Your task to perform on an android device: View the shopping cart on ebay. Add macbook to the cart on ebay Image 0: 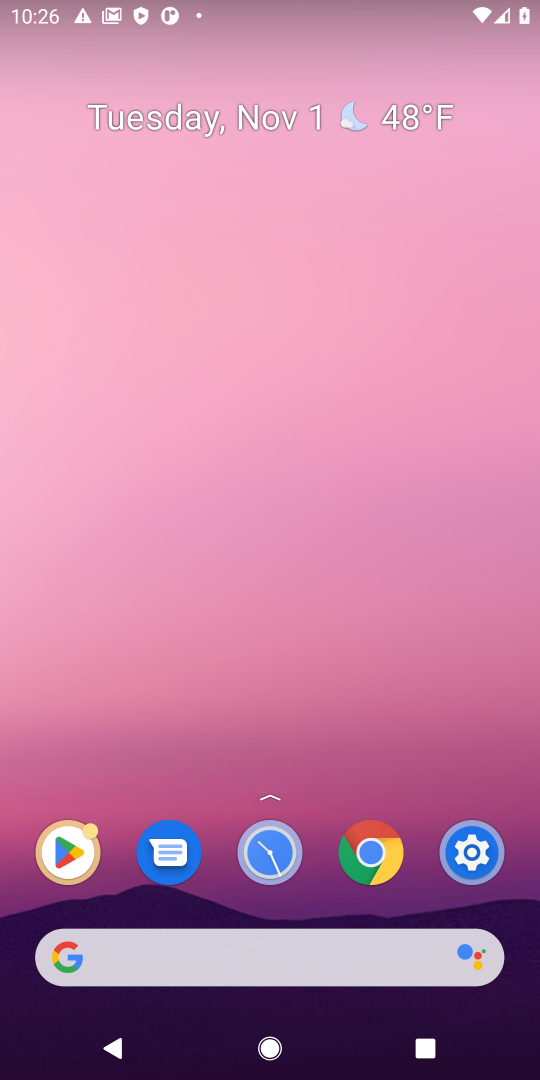
Step 0: click (156, 973)
Your task to perform on an android device: View the shopping cart on ebay. Add macbook to the cart on ebay Image 1: 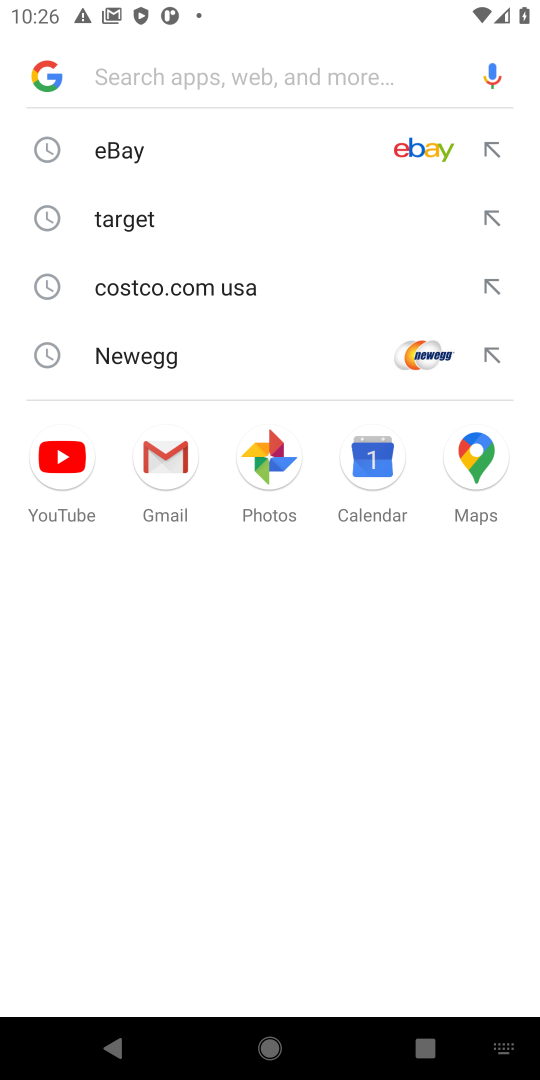
Step 1: type "ebay"
Your task to perform on an android device: View the shopping cart on ebay. Add macbook to the cart on ebay Image 2: 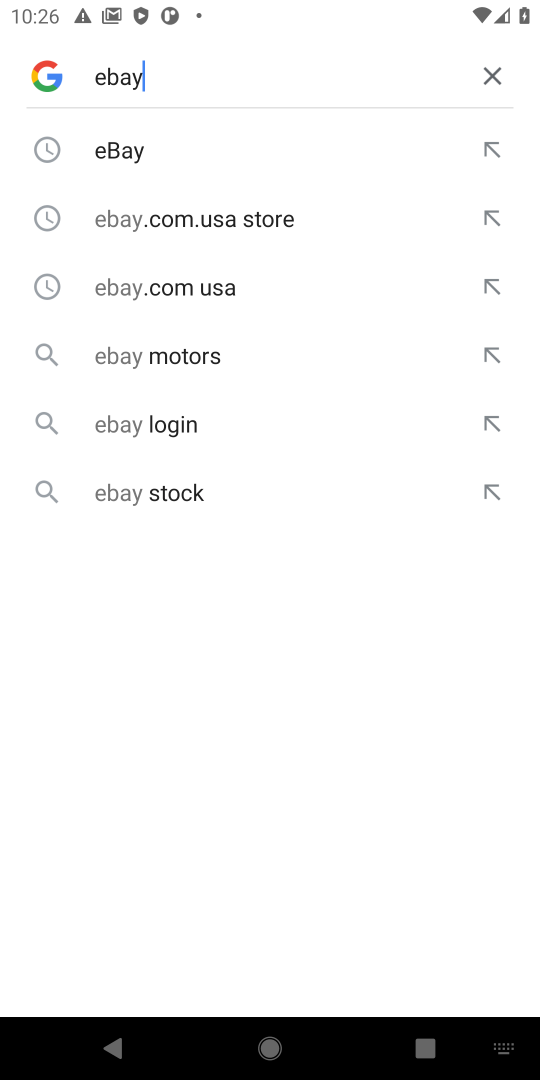
Step 2: type ""
Your task to perform on an android device: View the shopping cart on ebay. Add macbook to the cart on ebay Image 3: 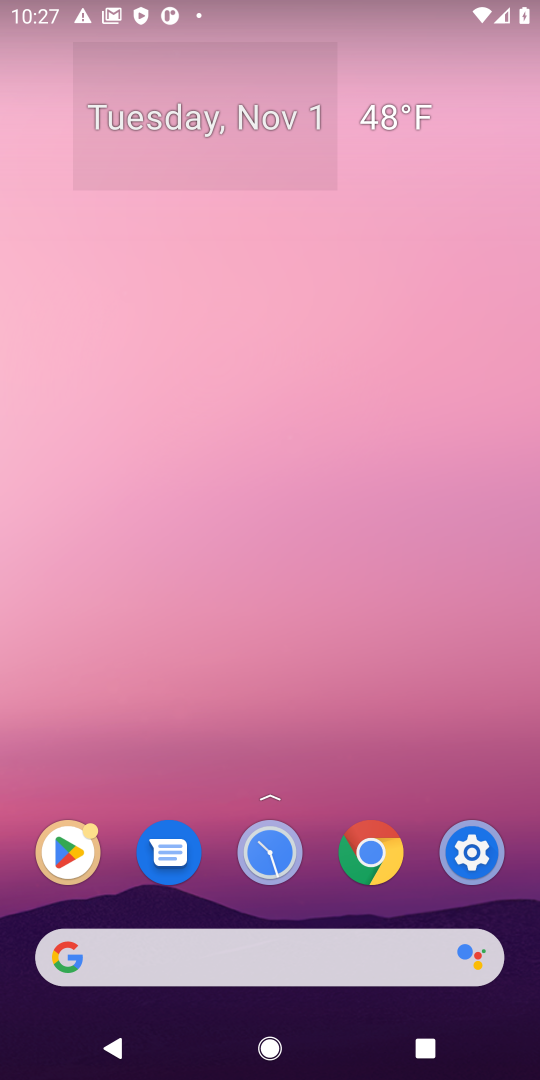
Step 3: click (236, 939)
Your task to perform on an android device: View the shopping cart on ebay. Add macbook to the cart on ebay Image 4: 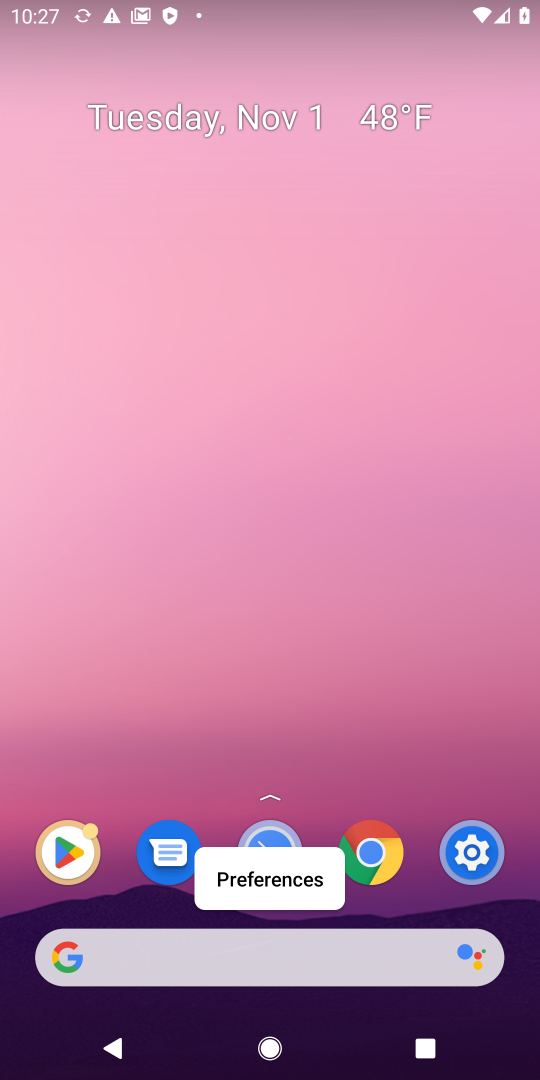
Step 4: click (264, 934)
Your task to perform on an android device: View the shopping cart on ebay. Add macbook to the cart on ebay Image 5: 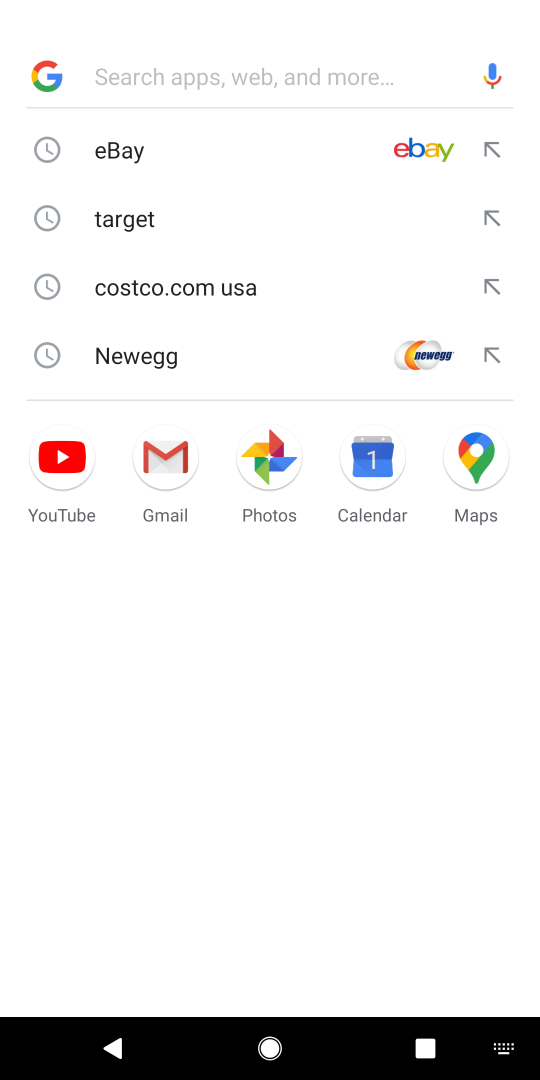
Step 5: type "macbook"
Your task to perform on an android device: View the shopping cart on ebay. Add macbook to the cart on ebay Image 6: 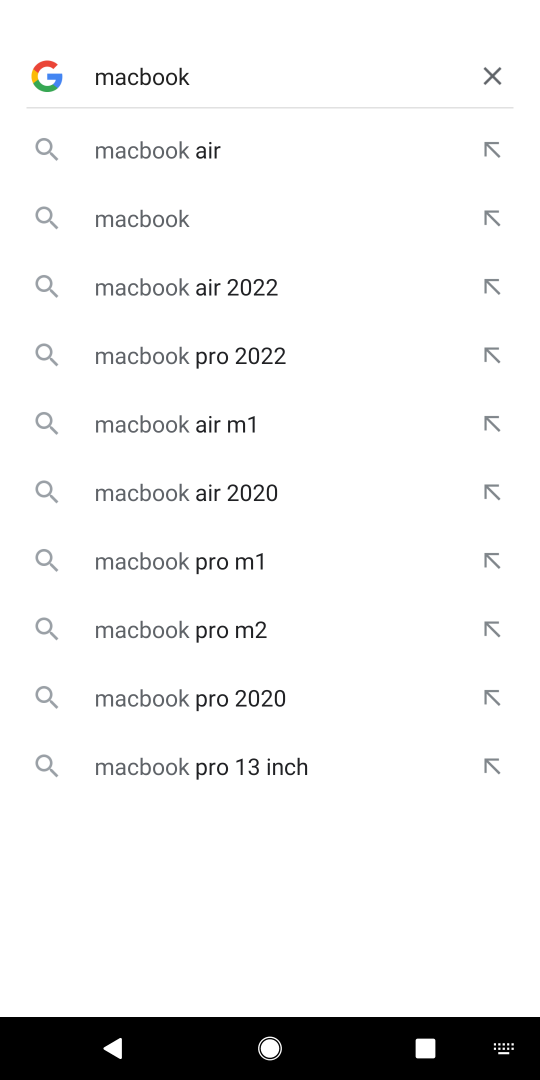
Step 6: type ""
Your task to perform on an android device: View the shopping cart on ebay. Add macbook to the cart on ebay Image 7: 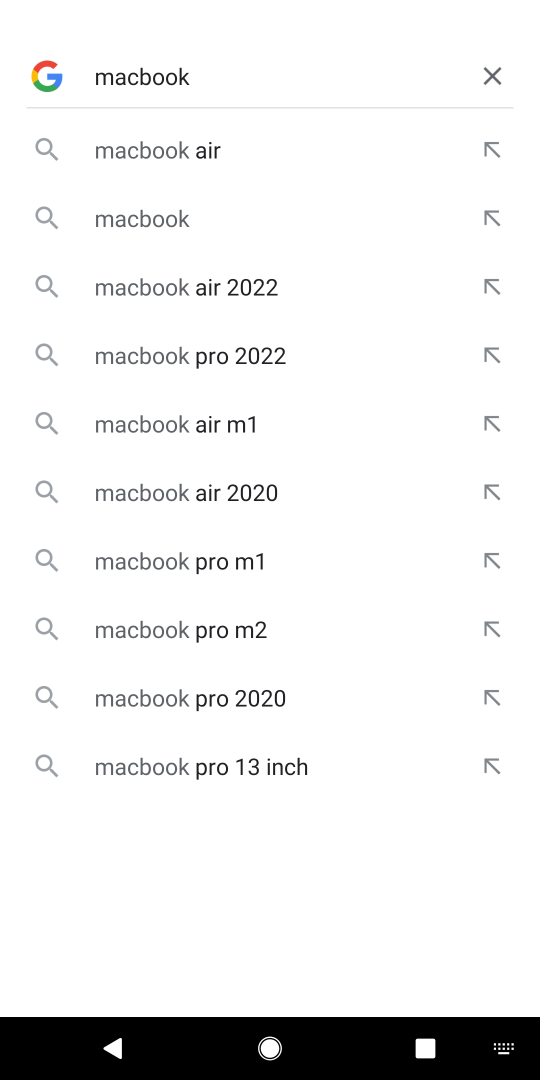
Step 7: press enter
Your task to perform on an android device: View the shopping cart on ebay. Add macbook to the cart on ebay Image 8: 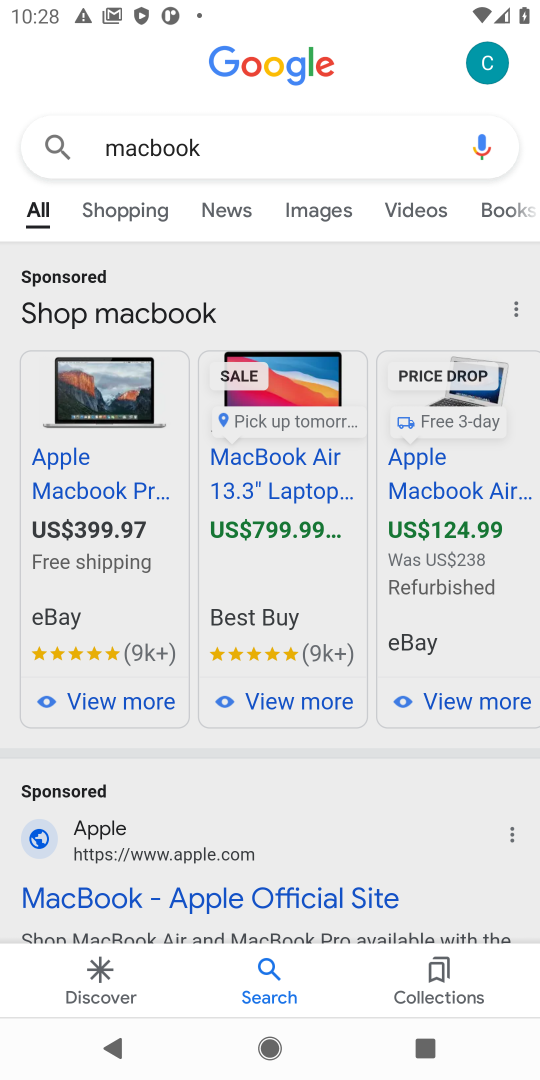
Step 8: click (235, 163)
Your task to perform on an android device: View the shopping cart on ebay. Add macbook to the cart on ebay Image 9: 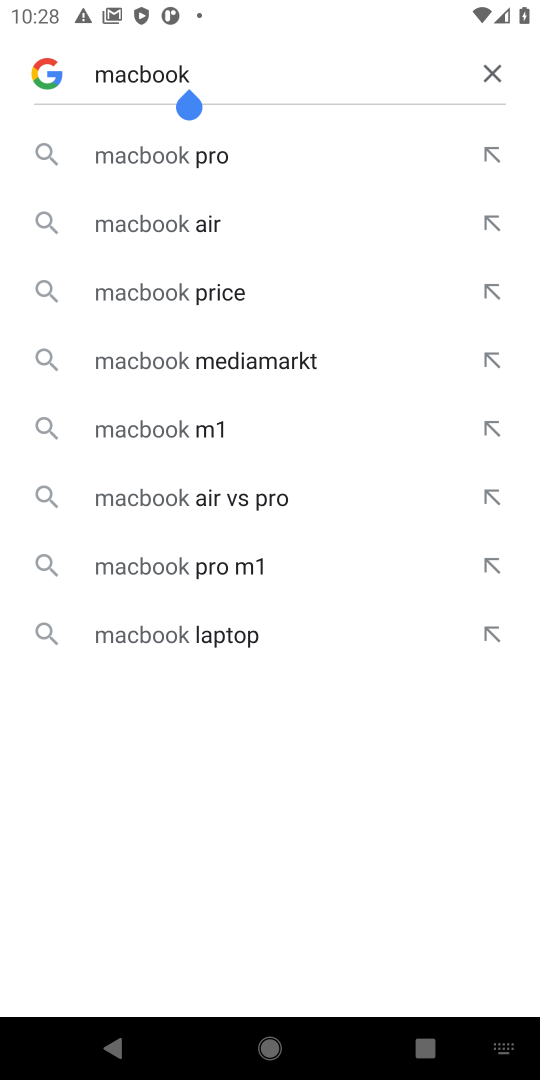
Step 9: click (493, 74)
Your task to perform on an android device: View the shopping cart on ebay. Add macbook to the cart on ebay Image 10: 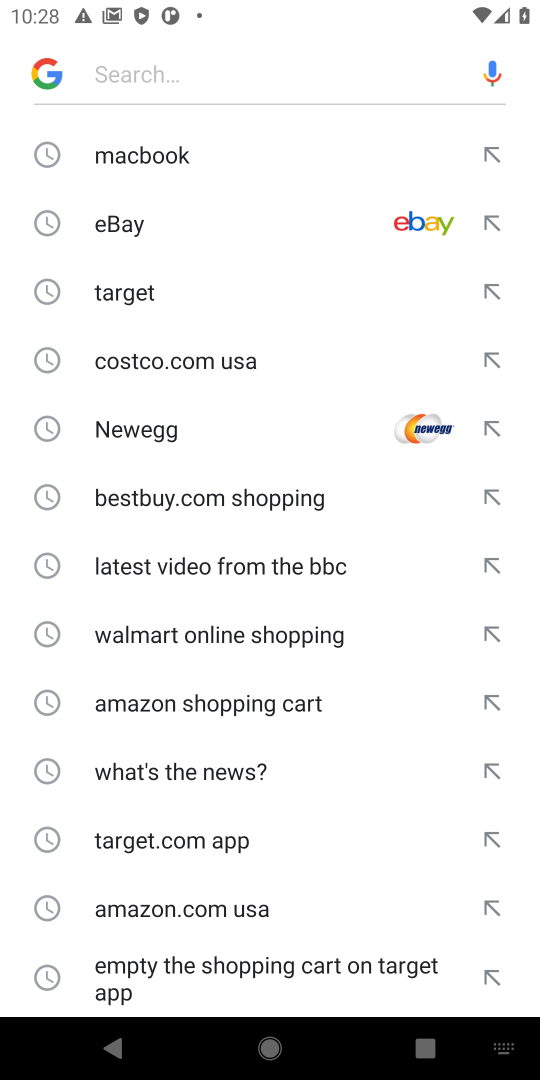
Step 10: type "ebay"
Your task to perform on an android device: View the shopping cart on ebay. Add macbook to the cart on ebay Image 11: 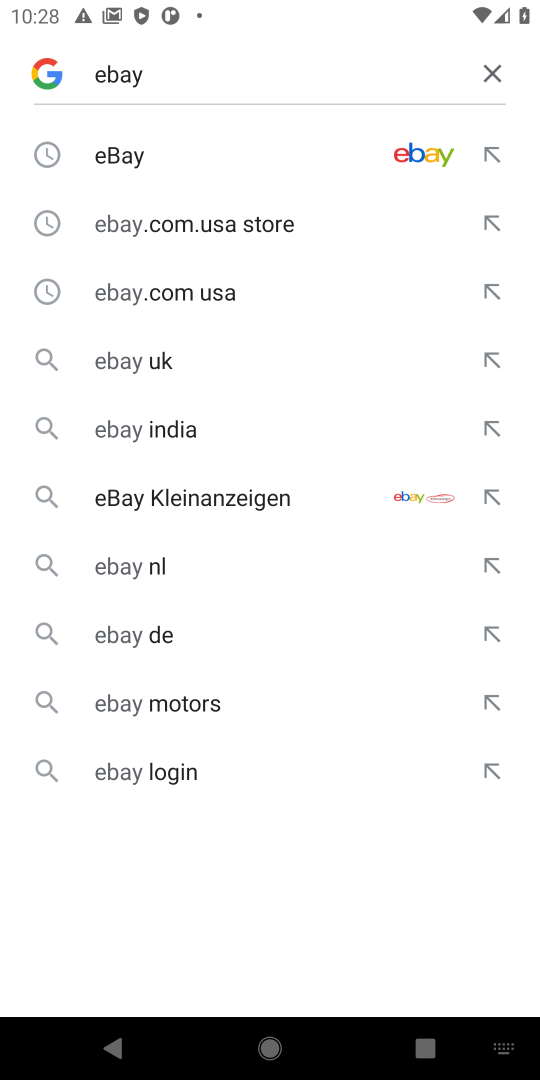
Step 11: type ""
Your task to perform on an android device: View the shopping cart on ebay. Add macbook to the cart on ebay Image 12: 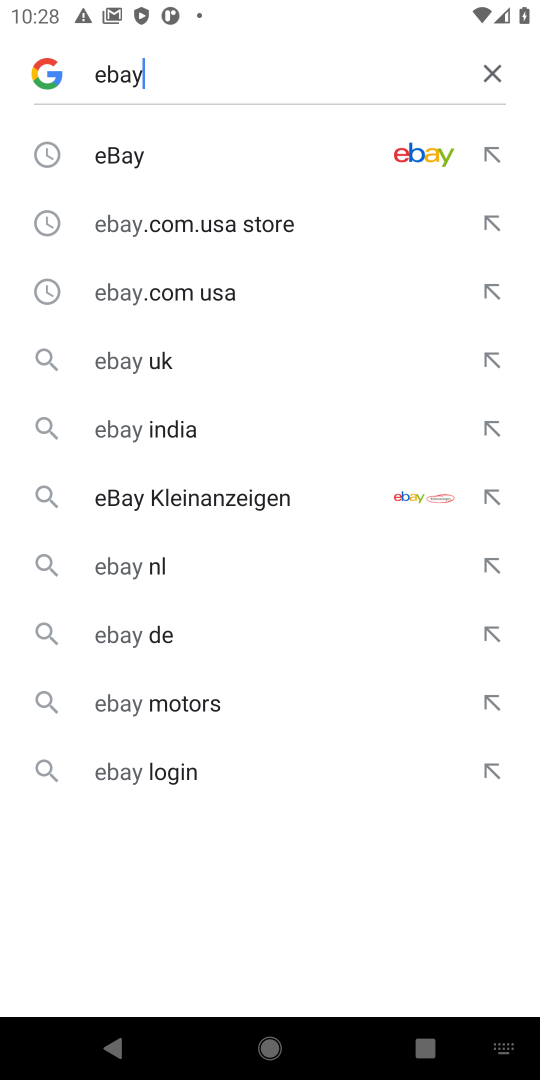
Step 12: press enter
Your task to perform on an android device: View the shopping cart on ebay. Add macbook to the cart on ebay Image 13: 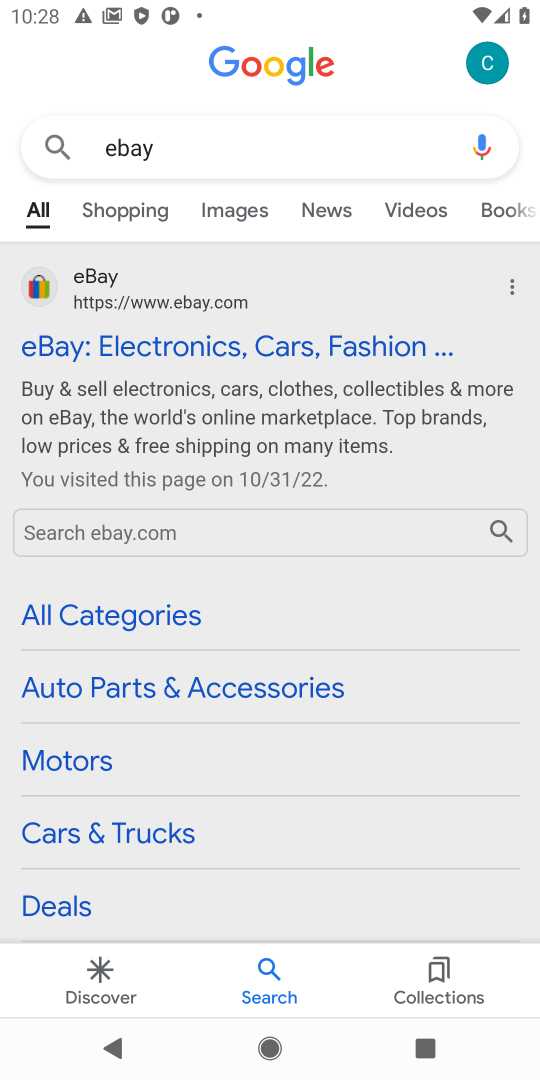
Step 13: click (105, 299)
Your task to perform on an android device: View the shopping cart on ebay. Add macbook to the cart on ebay Image 14: 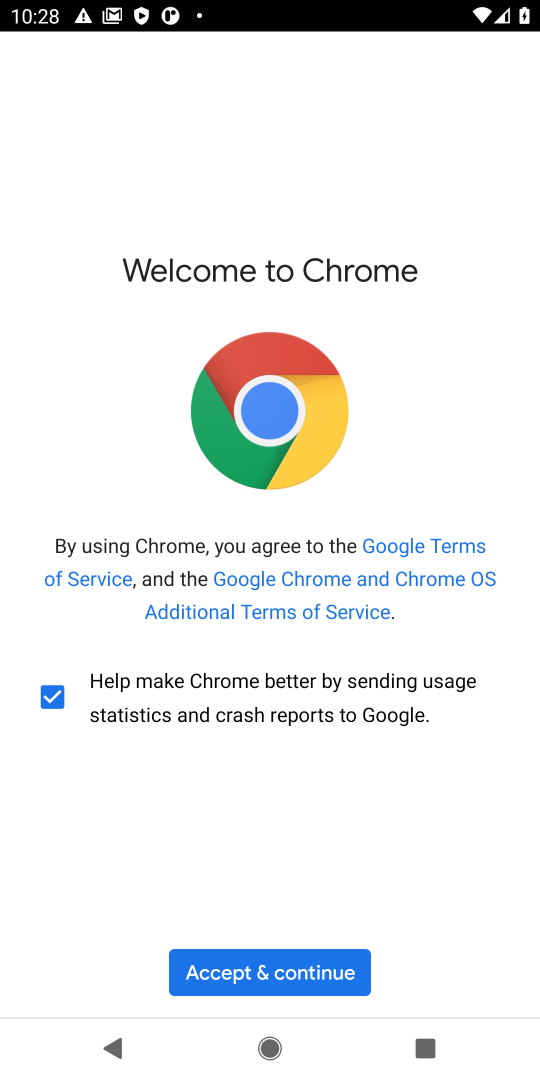
Step 14: click (291, 968)
Your task to perform on an android device: View the shopping cart on ebay. Add macbook to the cart on ebay Image 15: 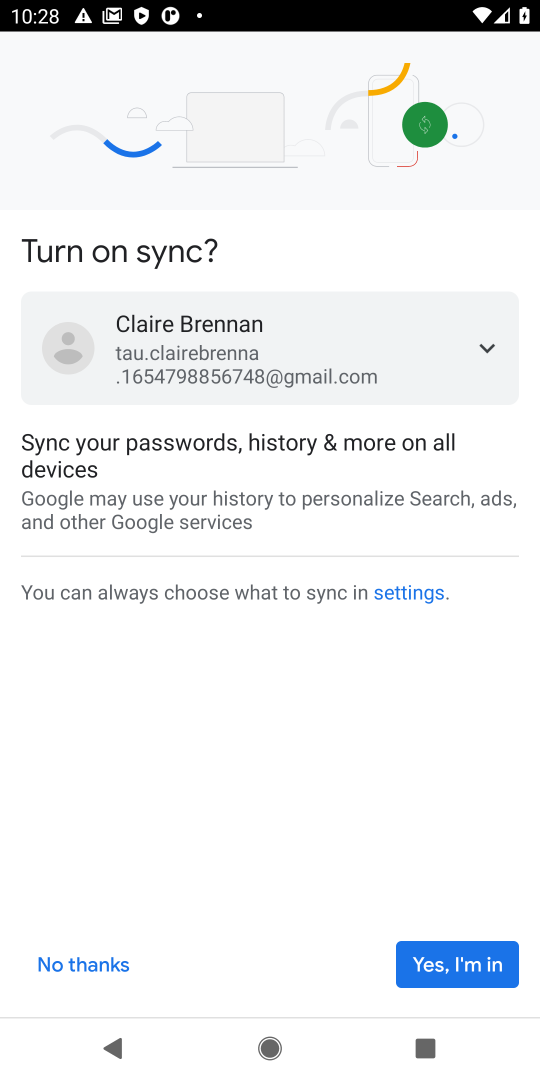
Step 15: click (417, 976)
Your task to perform on an android device: View the shopping cart on ebay. Add macbook to the cart on ebay Image 16: 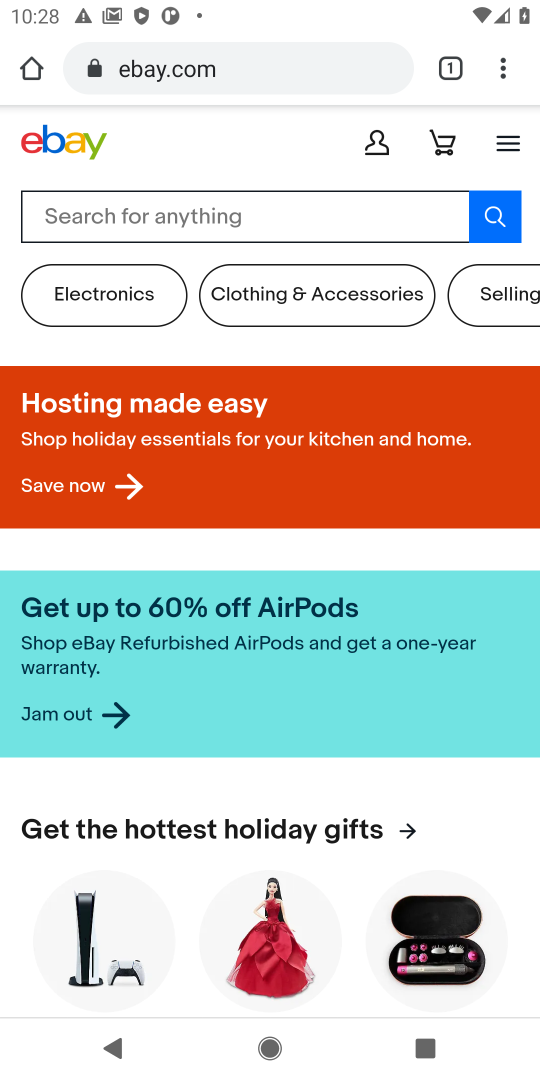
Step 16: click (72, 214)
Your task to perform on an android device: View the shopping cart on ebay. Add macbook to the cart on ebay Image 17: 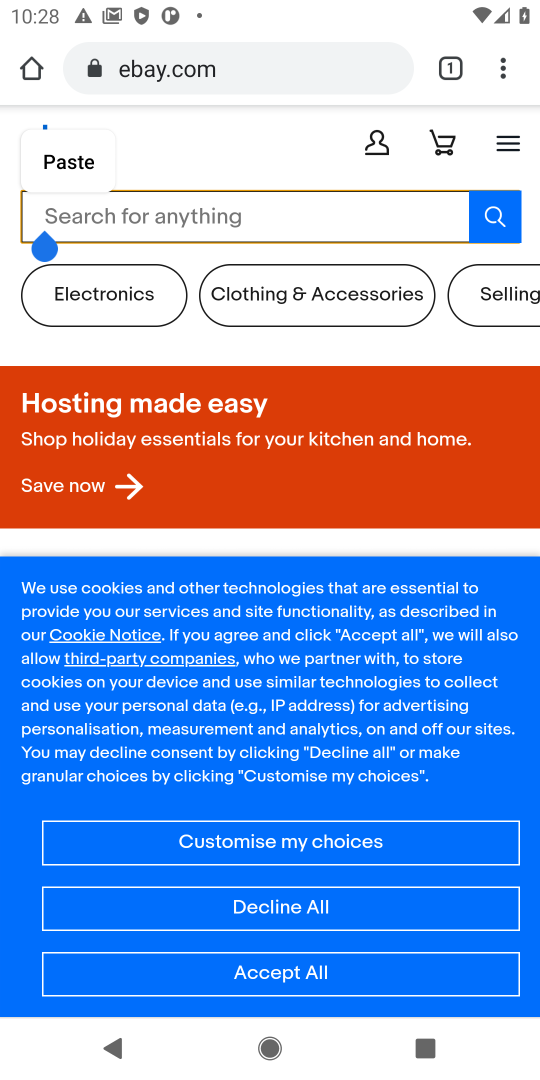
Step 17: click (332, 981)
Your task to perform on an android device: View the shopping cart on ebay. Add macbook to the cart on ebay Image 18: 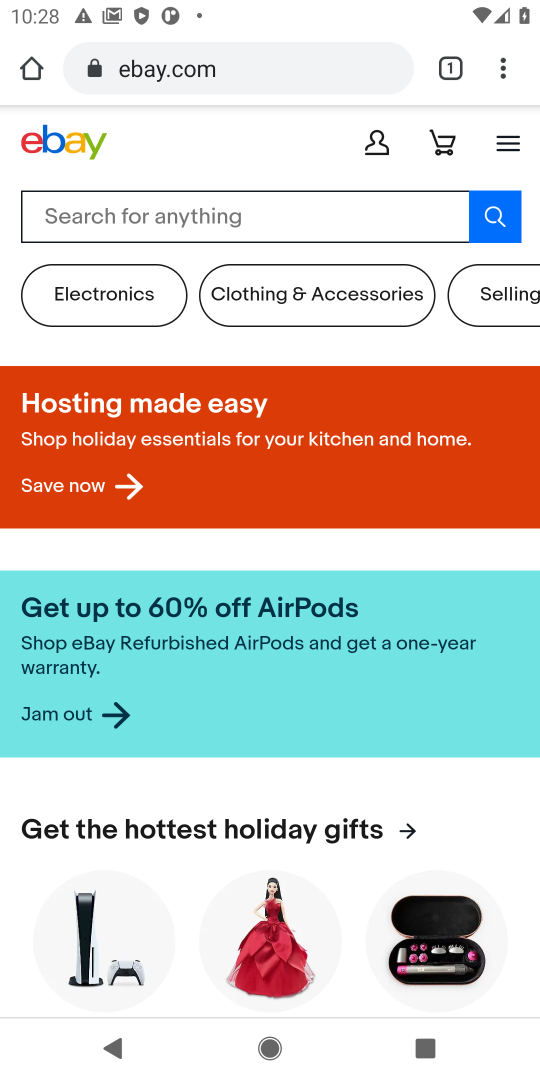
Step 18: click (61, 208)
Your task to perform on an android device: View the shopping cart on ebay. Add macbook to the cart on ebay Image 19: 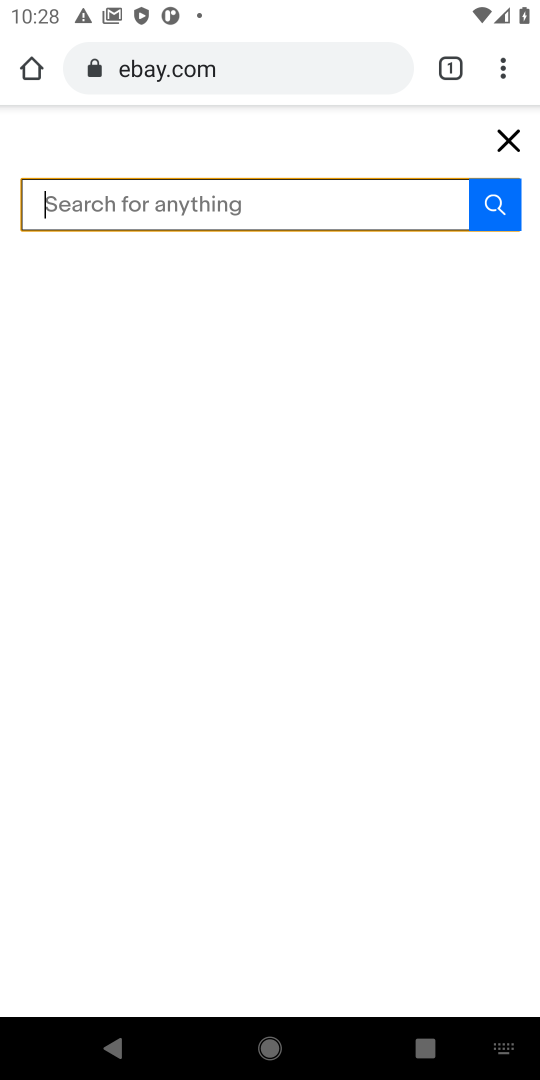
Step 19: type "macbook"
Your task to perform on an android device: View the shopping cart on ebay. Add macbook to the cart on ebay Image 20: 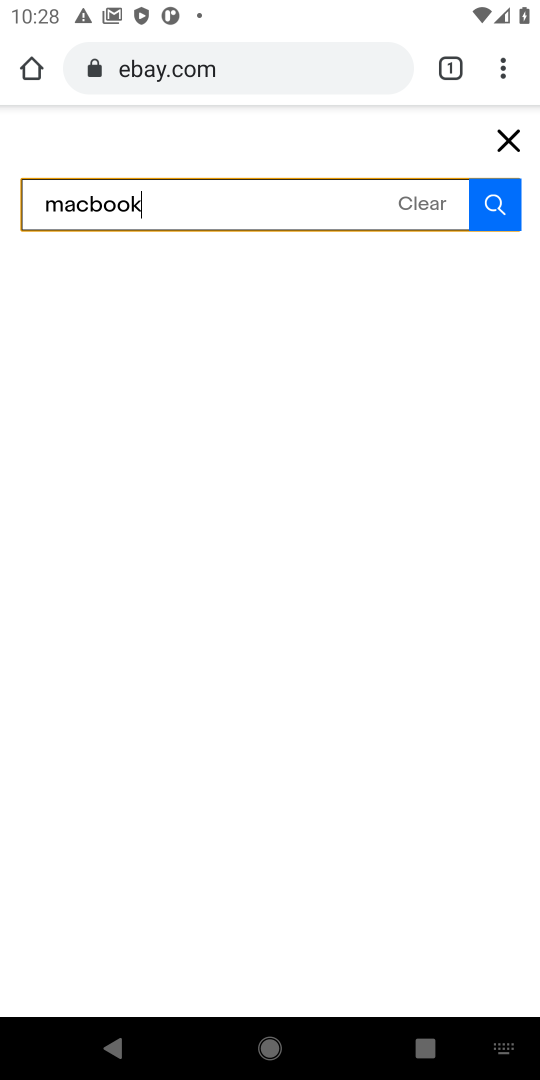
Step 20: type ""
Your task to perform on an android device: View the shopping cart on ebay. Add macbook to the cart on ebay Image 21: 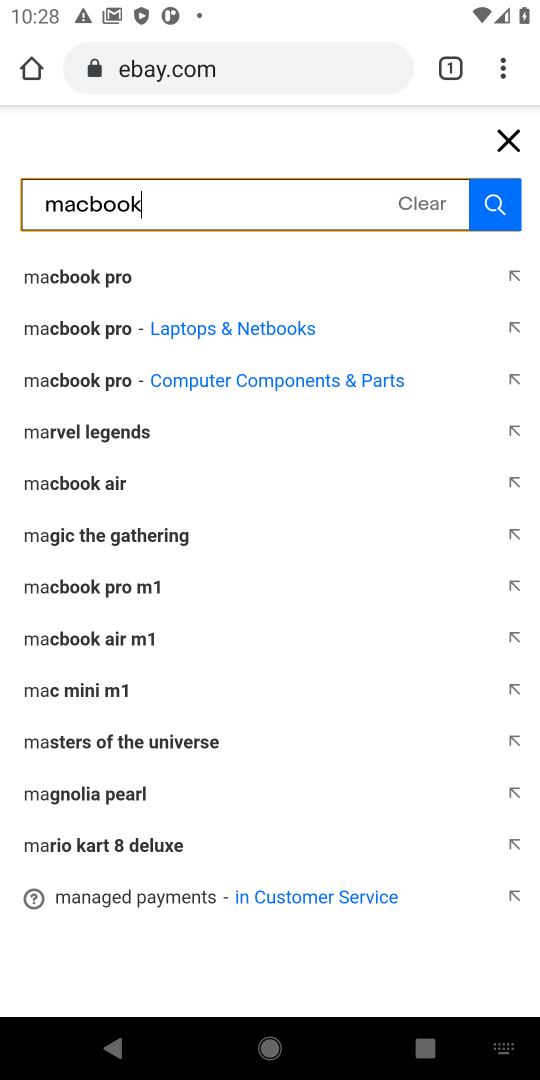
Step 21: click (504, 219)
Your task to perform on an android device: View the shopping cart on ebay. Add macbook to the cart on ebay Image 22: 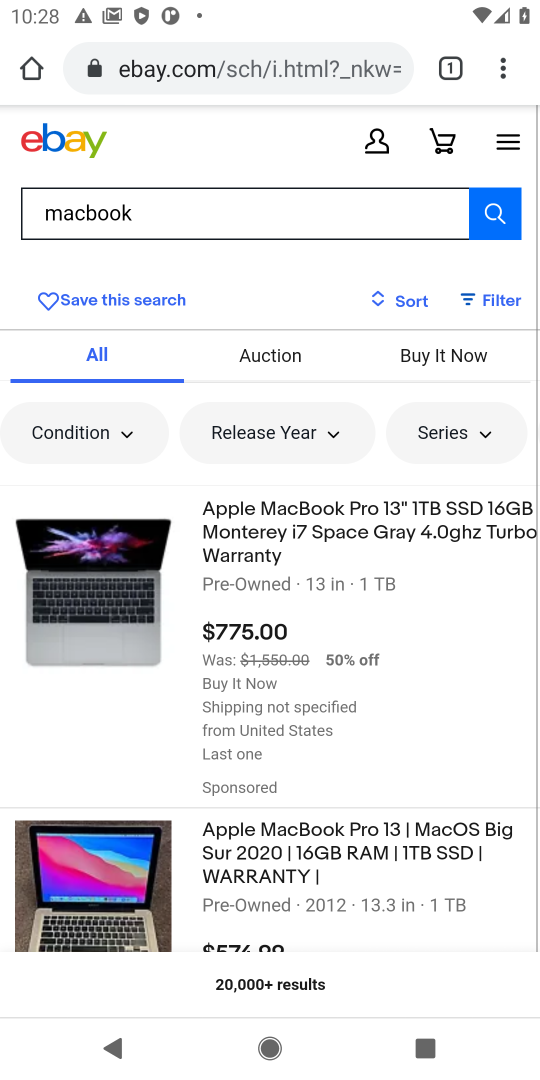
Step 22: click (320, 508)
Your task to perform on an android device: View the shopping cart on ebay. Add macbook to the cart on ebay Image 23: 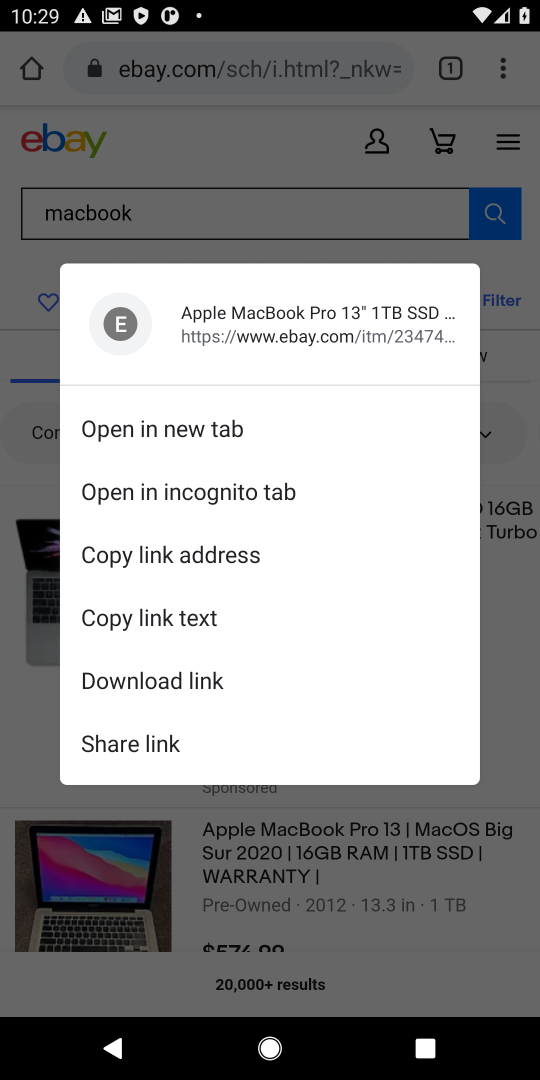
Step 23: click (516, 495)
Your task to perform on an android device: View the shopping cart on ebay. Add macbook to the cart on ebay Image 24: 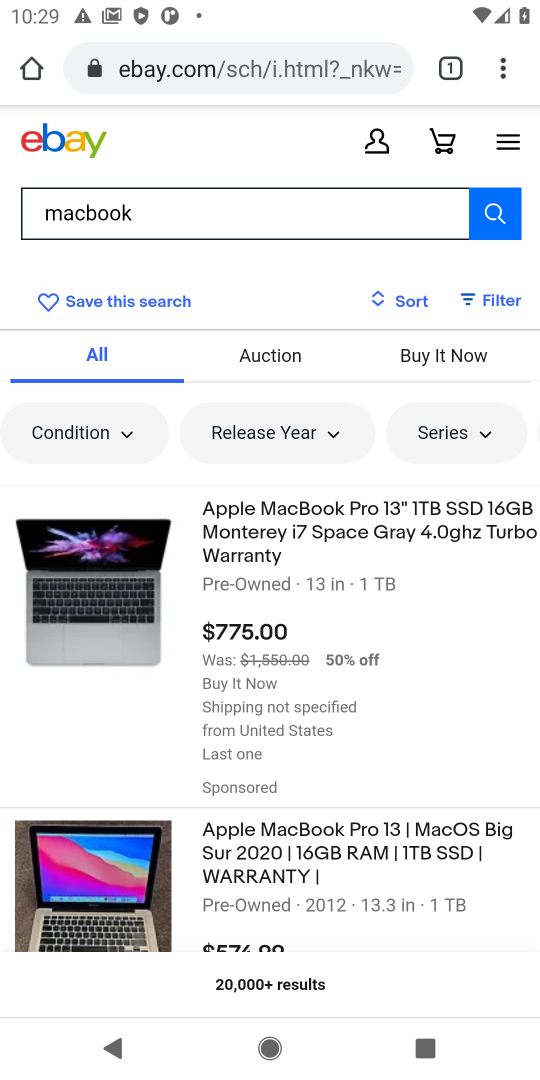
Step 24: click (339, 527)
Your task to perform on an android device: View the shopping cart on ebay. Add macbook to the cart on ebay Image 25: 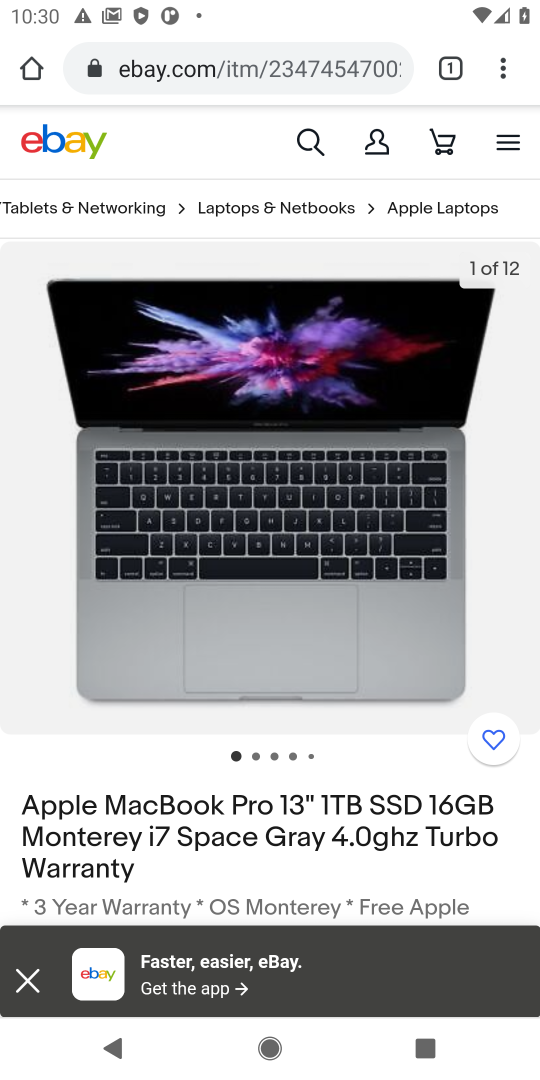
Step 25: drag from (430, 749) to (380, 212)
Your task to perform on an android device: View the shopping cart on ebay. Add macbook to the cart on ebay Image 26: 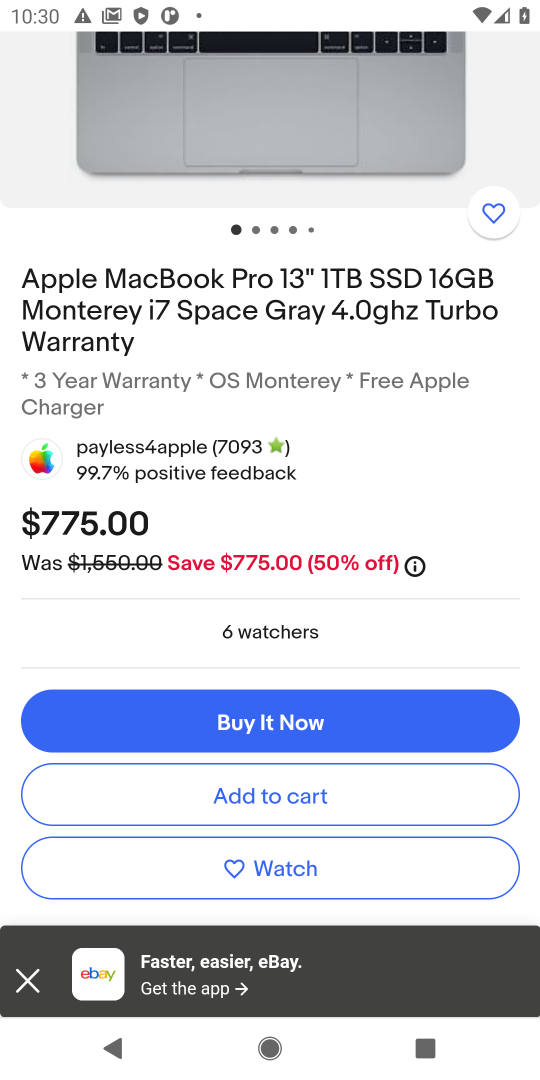
Step 26: click (258, 785)
Your task to perform on an android device: View the shopping cart on ebay. Add macbook to the cart on ebay Image 27: 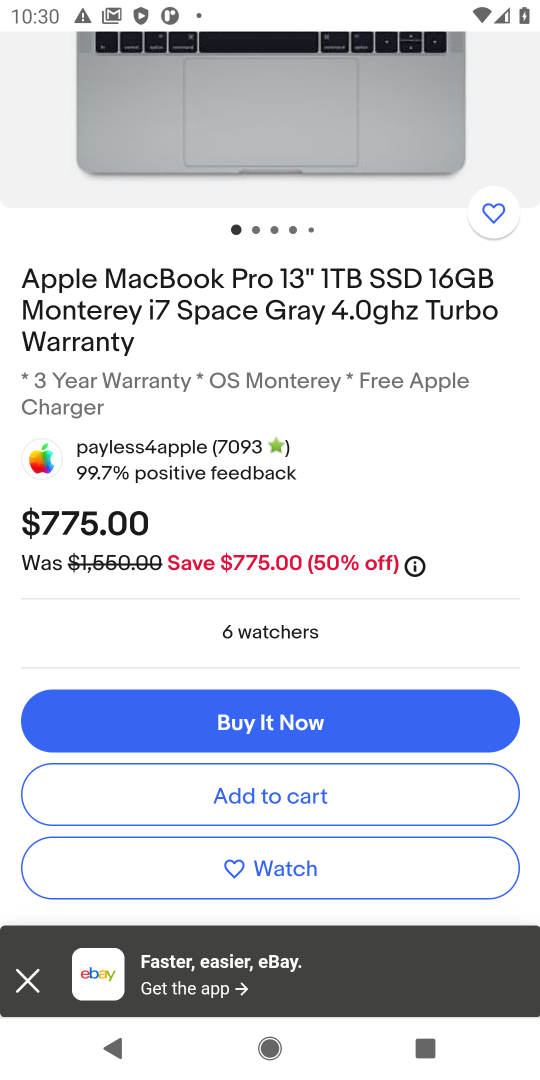
Step 27: click (260, 792)
Your task to perform on an android device: View the shopping cart on ebay. Add macbook to the cart on ebay Image 28: 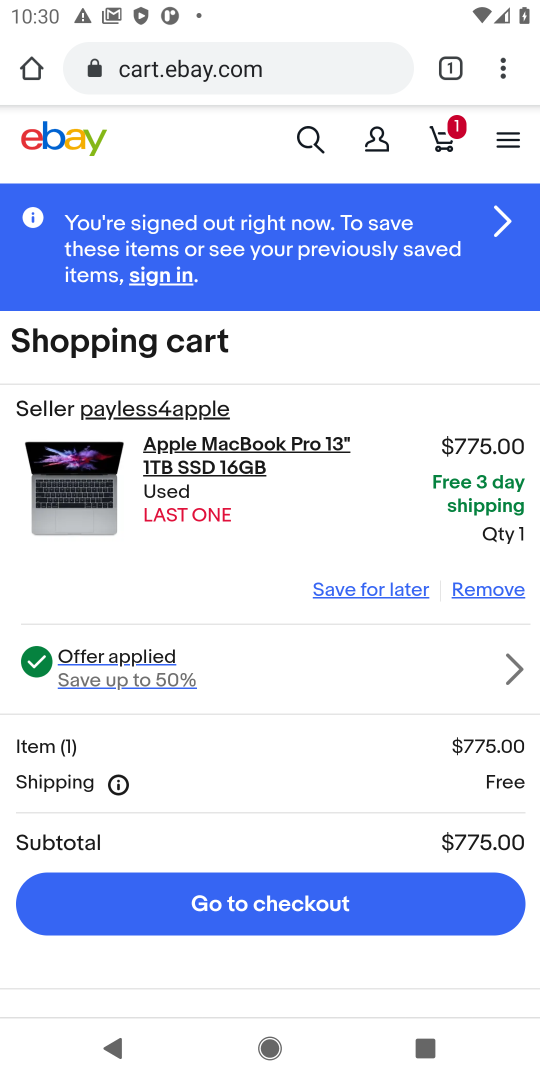
Step 28: click (281, 905)
Your task to perform on an android device: View the shopping cart on ebay. Add macbook to the cart on ebay Image 29: 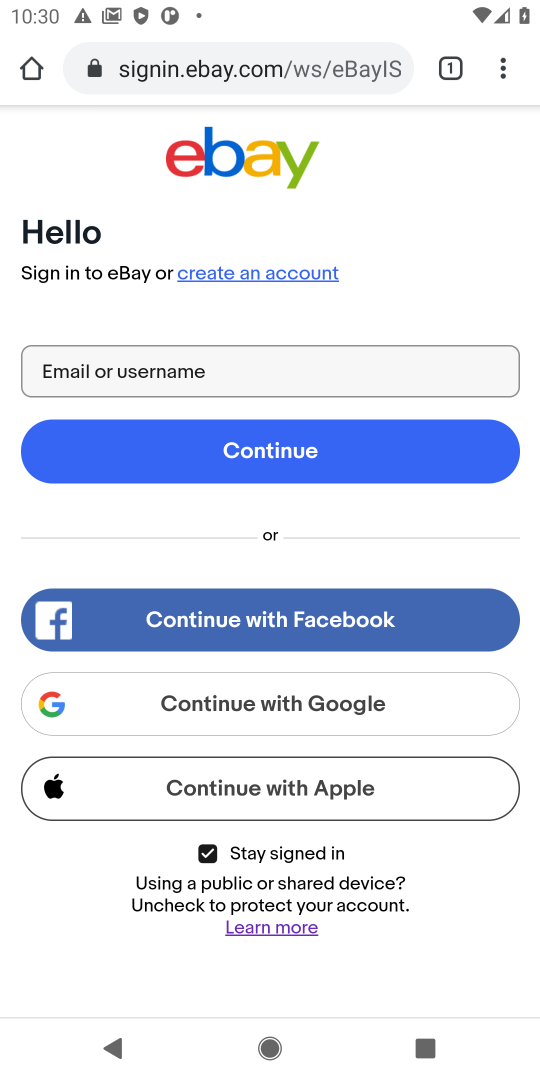
Step 29: task complete